Your task to perform on an android device: Go to battery settings Image 0: 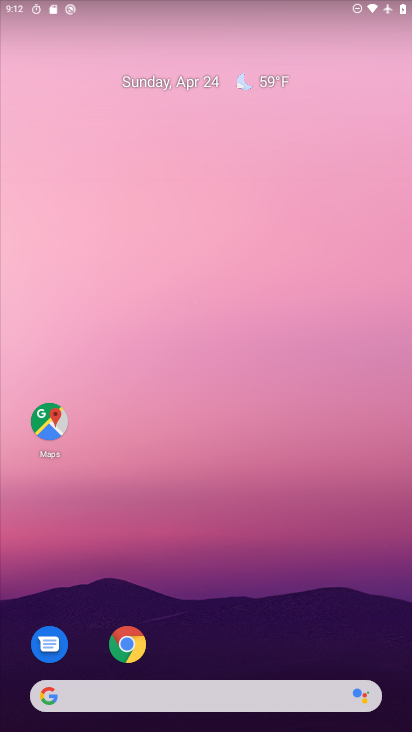
Step 0: drag from (211, 658) to (215, 22)
Your task to perform on an android device: Go to battery settings Image 1: 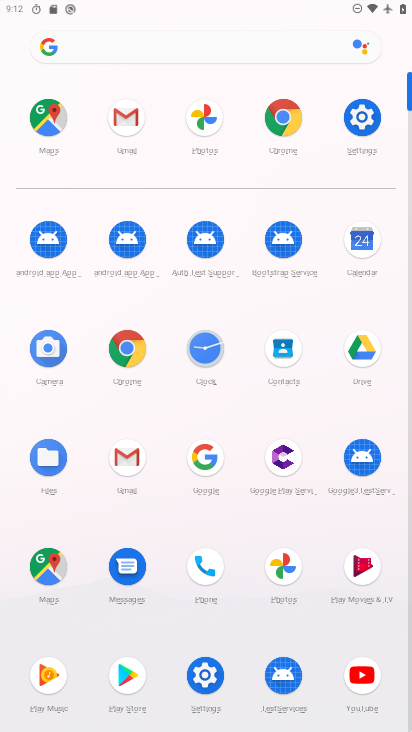
Step 1: click (202, 667)
Your task to perform on an android device: Go to battery settings Image 2: 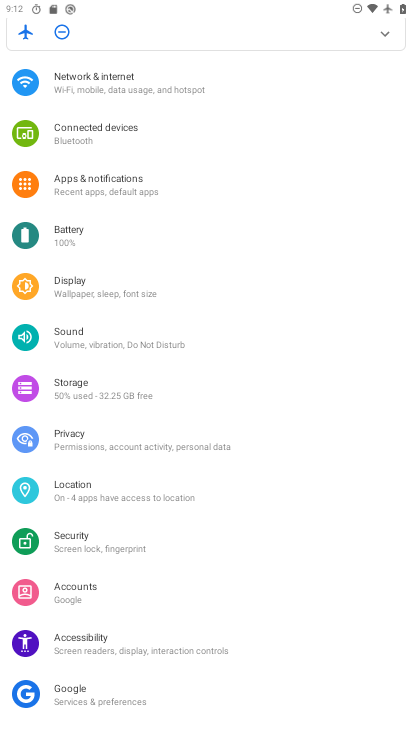
Step 2: click (89, 230)
Your task to perform on an android device: Go to battery settings Image 3: 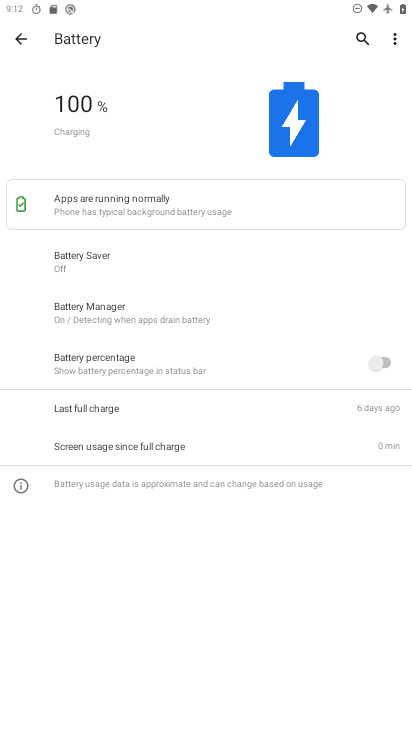
Step 3: task complete